Your task to perform on an android device: Go to Amazon Image 0: 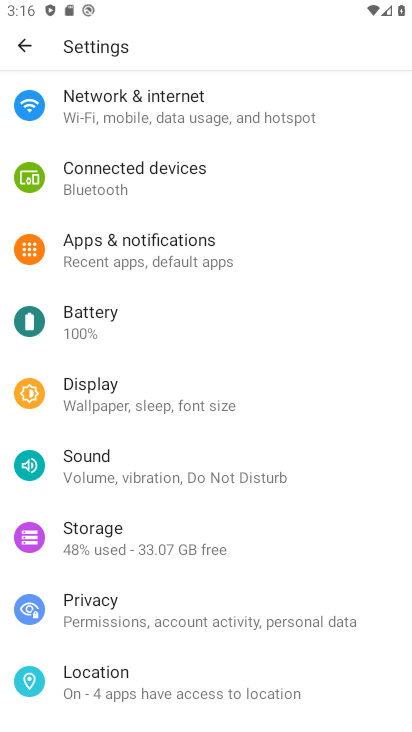
Step 0: press home button
Your task to perform on an android device: Go to Amazon Image 1: 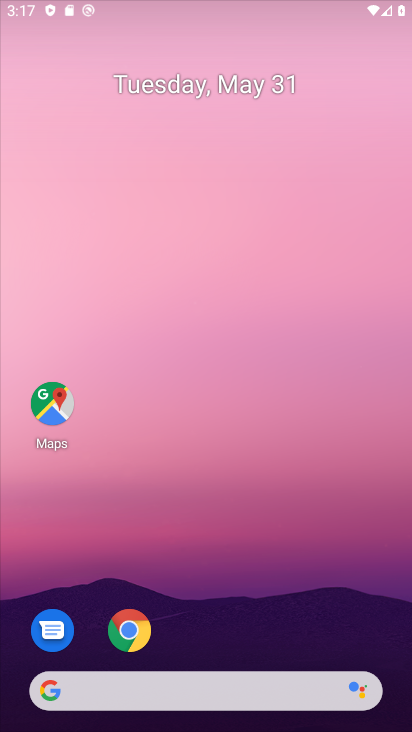
Step 1: drag from (199, 656) to (162, 1)
Your task to perform on an android device: Go to Amazon Image 2: 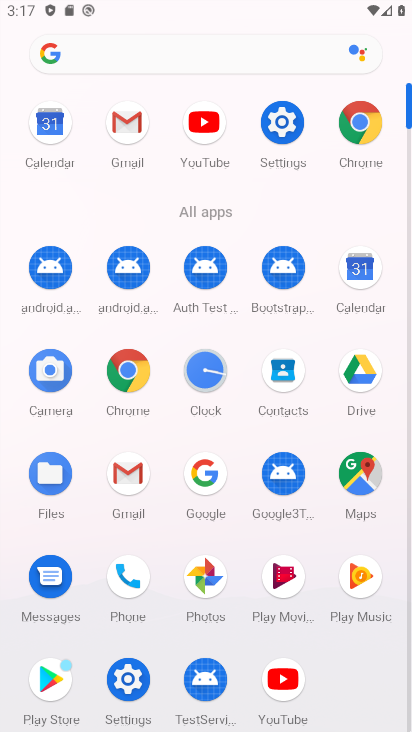
Step 2: click (114, 374)
Your task to perform on an android device: Go to Amazon Image 3: 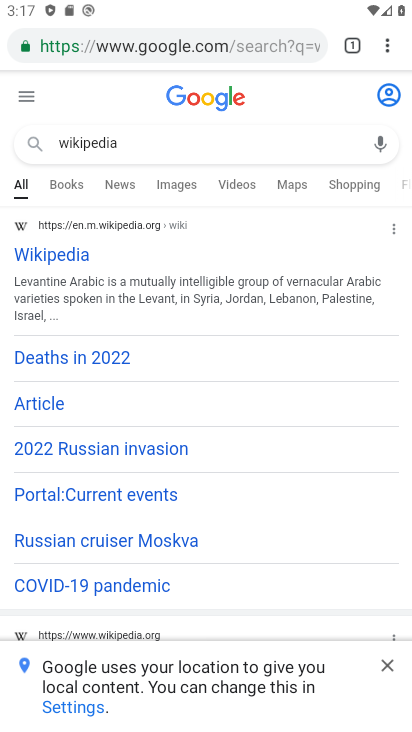
Step 3: click (105, 36)
Your task to perform on an android device: Go to Amazon Image 4: 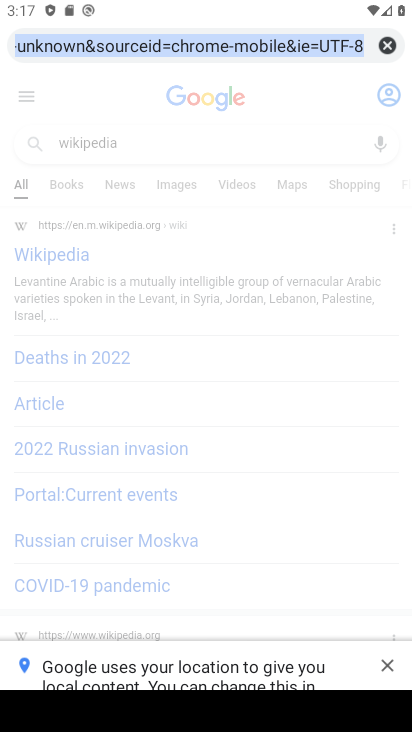
Step 4: click (380, 50)
Your task to perform on an android device: Go to Amazon Image 5: 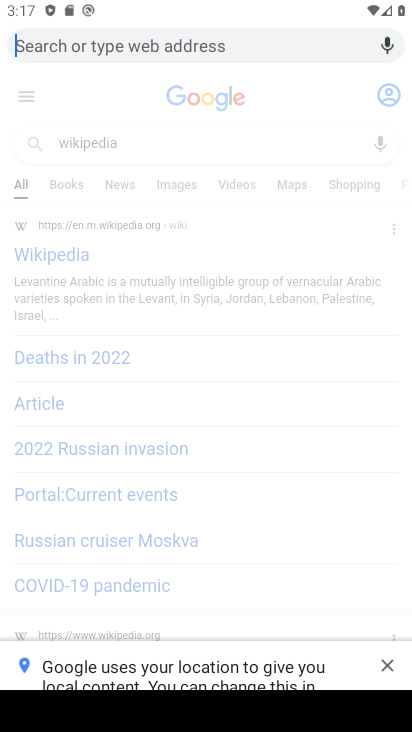
Step 5: type "amazon"
Your task to perform on an android device: Go to Amazon Image 6: 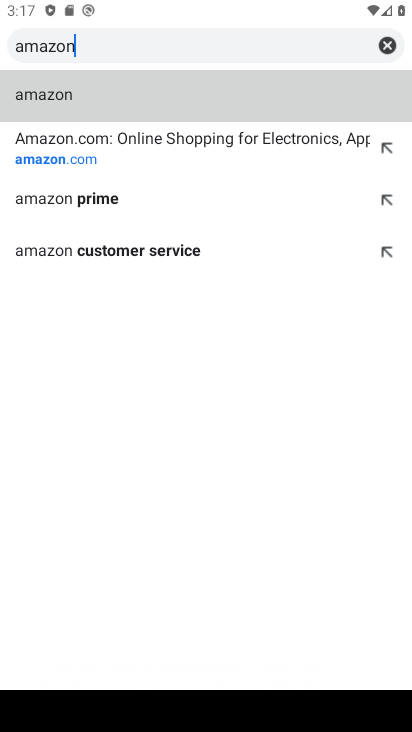
Step 6: click (74, 149)
Your task to perform on an android device: Go to Amazon Image 7: 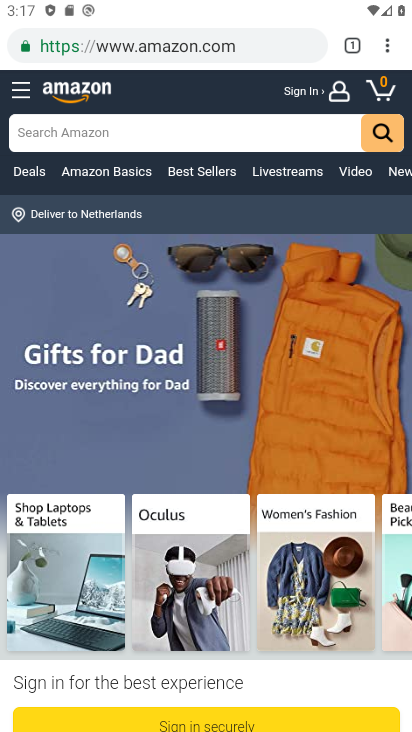
Step 7: task complete